Your task to perform on an android device: check data usage Image 0: 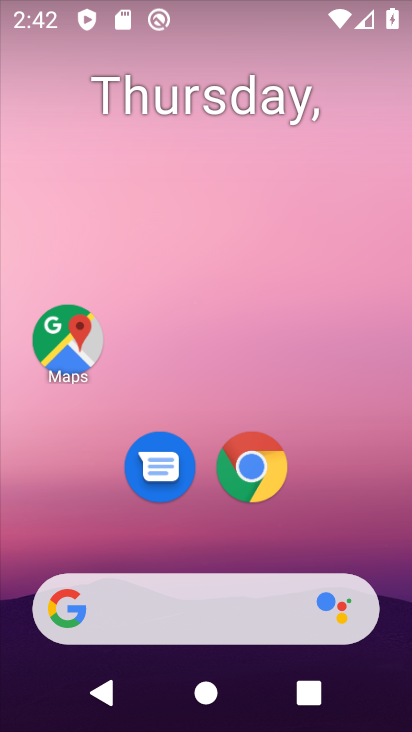
Step 0: drag from (170, 630) to (136, 5)
Your task to perform on an android device: check data usage Image 1: 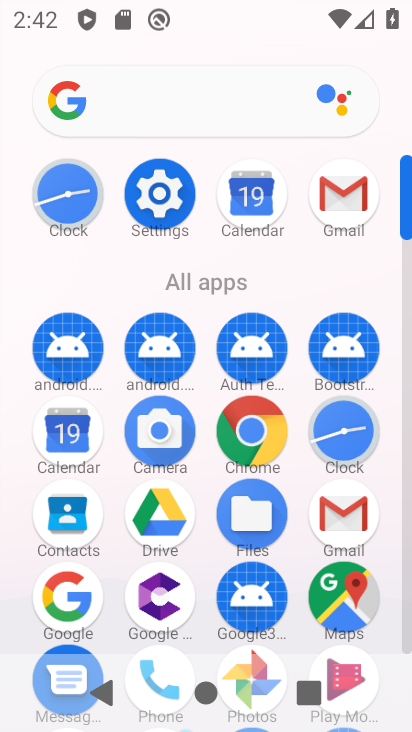
Step 1: click (176, 201)
Your task to perform on an android device: check data usage Image 2: 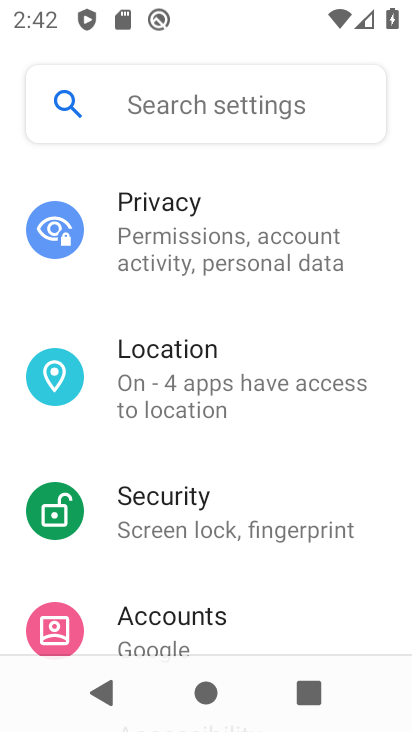
Step 2: drag from (233, 607) to (231, 71)
Your task to perform on an android device: check data usage Image 3: 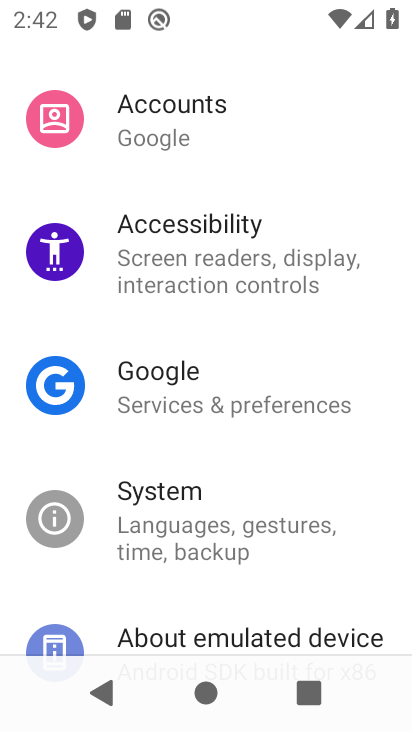
Step 3: drag from (158, 152) to (128, 722)
Your task to perform on an android device: check data usage Image 4: 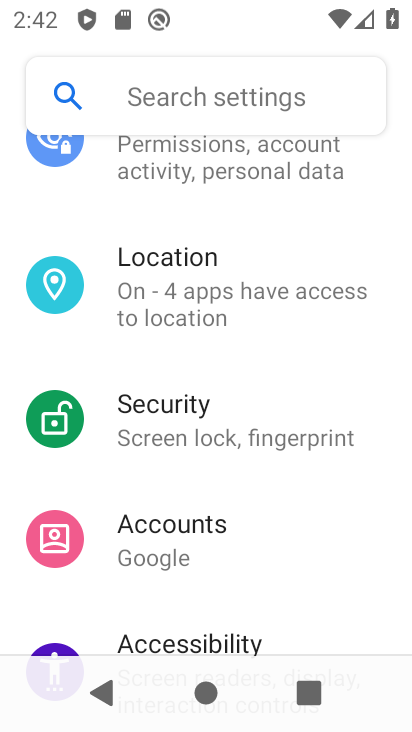
Step 4: drag from (183, 287) to (62, 728)
Your task to perform on an android device: check data usage Image 5: 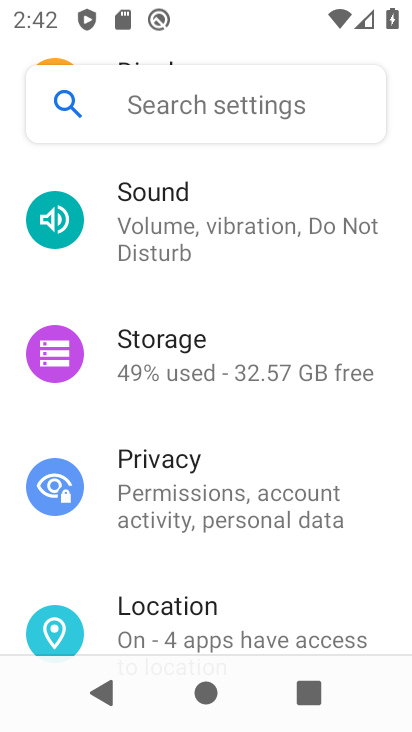
Step 5: drag from (174, 290) to (56, 730)
Your task to perform on an android device: check data usage Image 6: 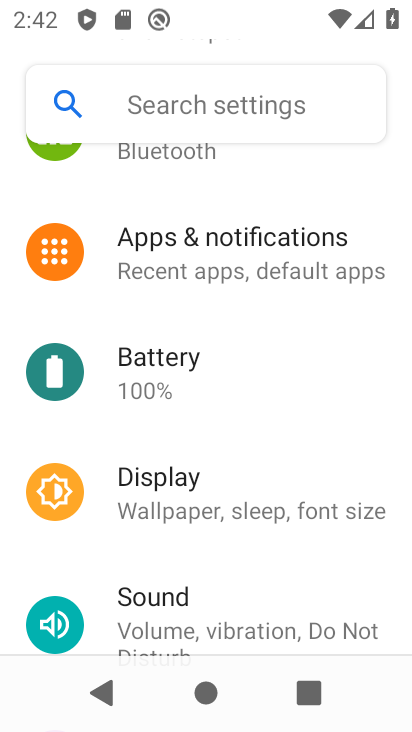
Step 6: drag from (179, 220) to (179, 610)
Your task to perform on an android device: check data usage Image 7: 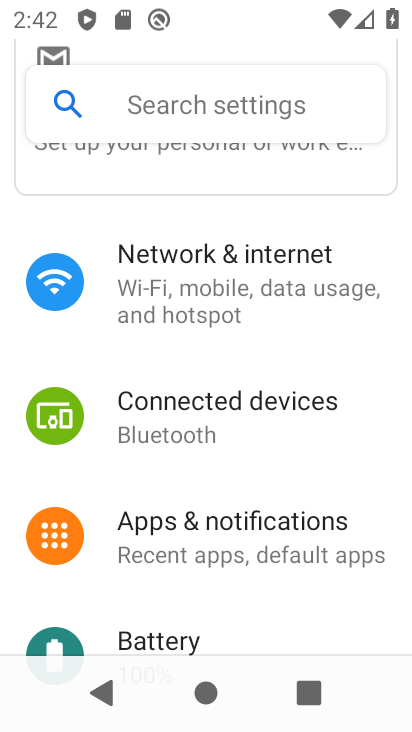
Step 7: click (169, 312)
Your task to perform on an android device: check data usage Image 8: 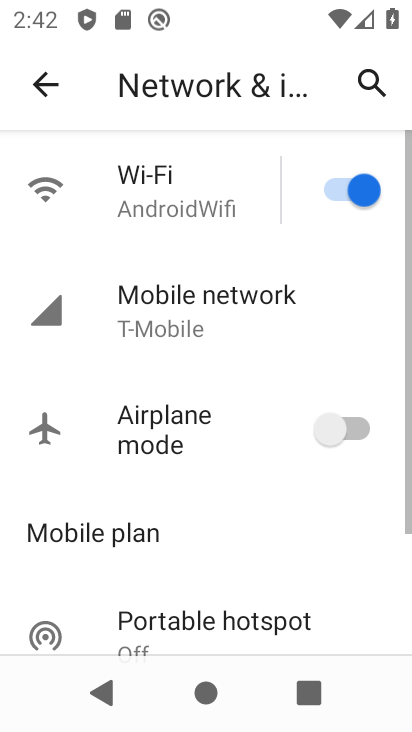
Step 8: click (212, 325)
Your task to perform on an android device: check data usage Image 9: 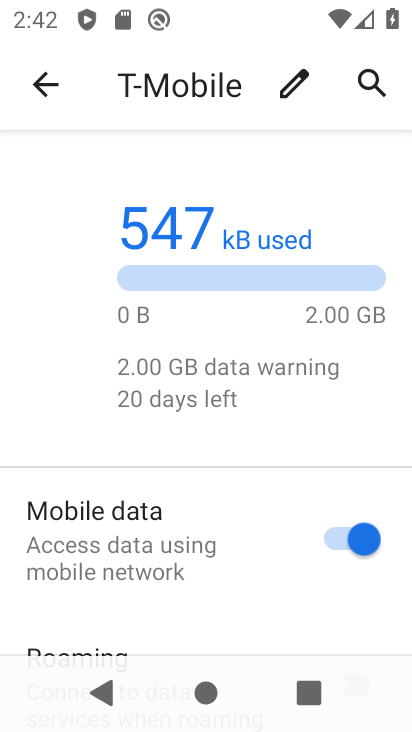
Step 9: task complete